Your task to perform on an android device: clear all cookies in the chrome app Image 0: 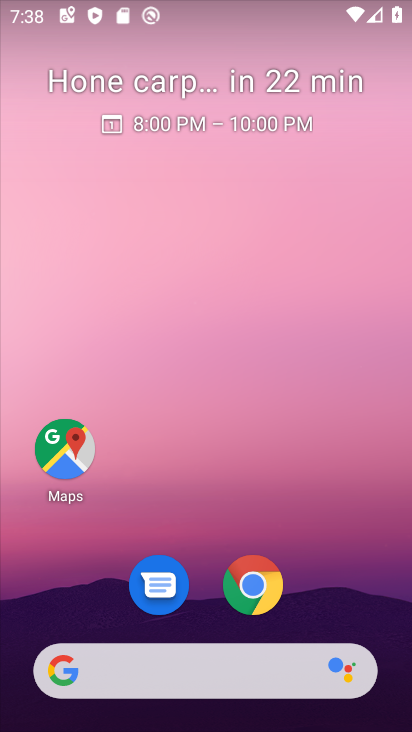
Step 0: click (257, 582)
Your task to perform on an android device: clear all cookies in the chrome app Image 1: 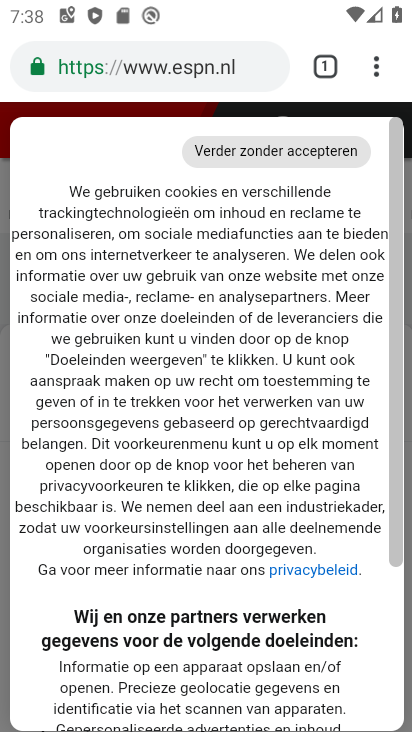
Step 1: click (372, 64)
Your task to perform on an android device: clear all cookies in the chrome app Image 2: 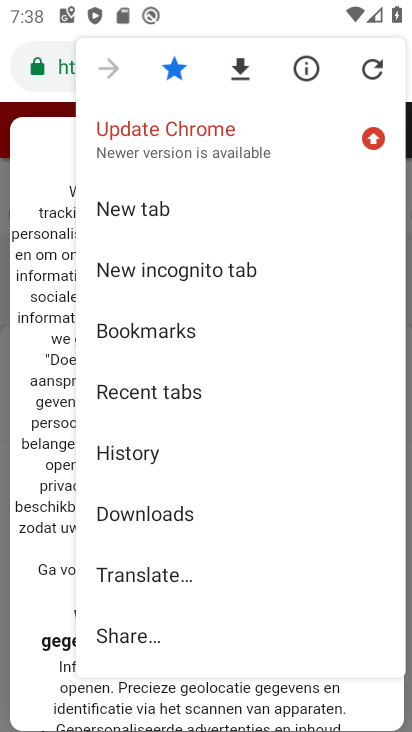
Step 2: drag from (233, 548) to (269, 143)
Your task to perform on an android device: clear all cookies in the chrome app Image 3: 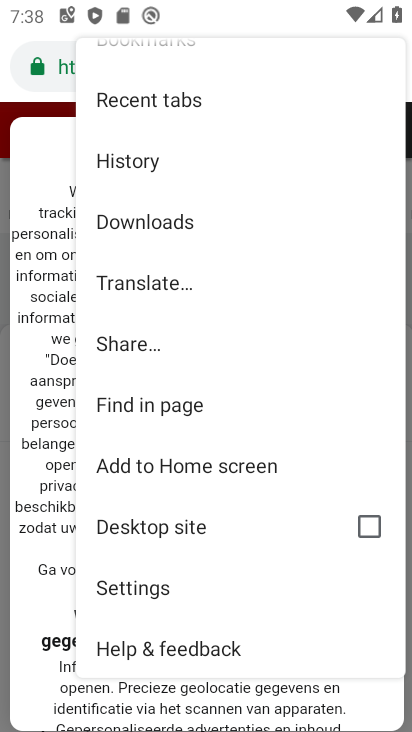
Step 3: click (150, 595)
Your task to perform on an android device: clear all cookies in the chrome app Image 4: 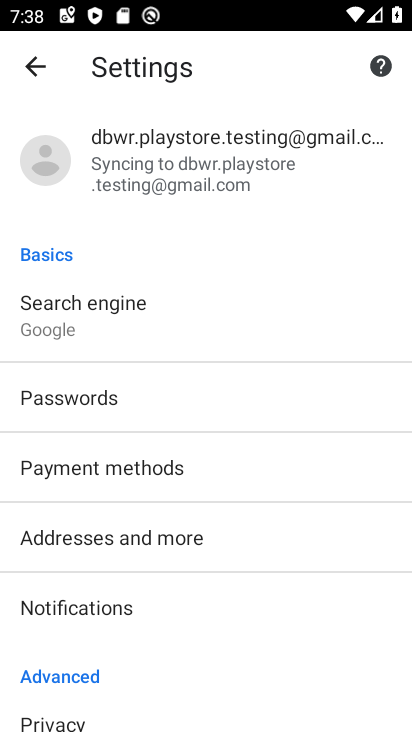
Step 4: drag from (163, 627) to (201, 445)
Your task to perform on an android device: clear all cookies in the chrome app Image 5: 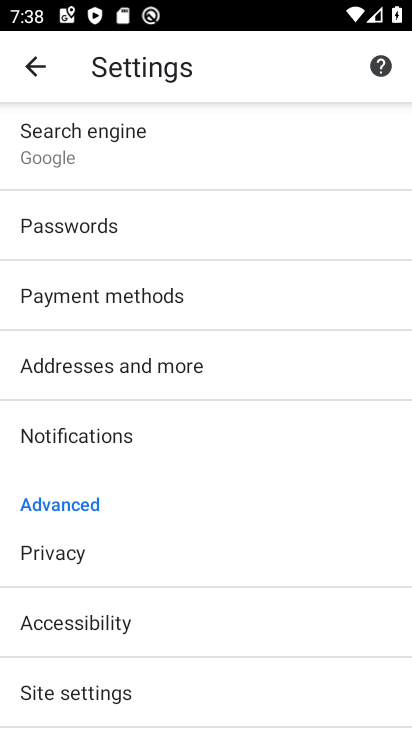
Step 5: click (196, 566)
Your task to perform on an android device: clear all cookies in the chrome app Image 6: 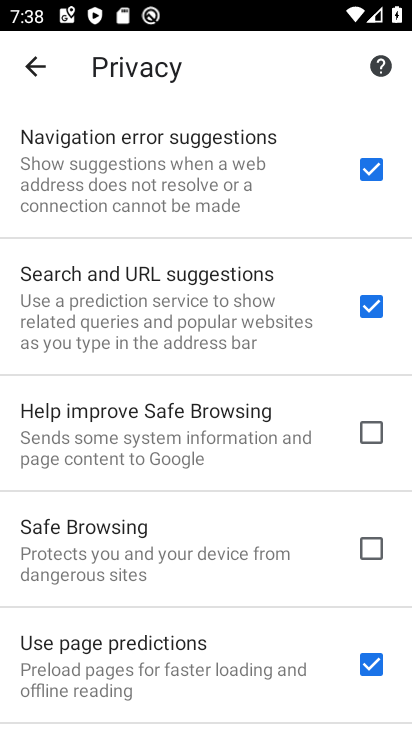
Step 6: drag from (220, 605) to (273, 43)
Your task to perform on an android device: clear all cookies in the chrome app Image 7: 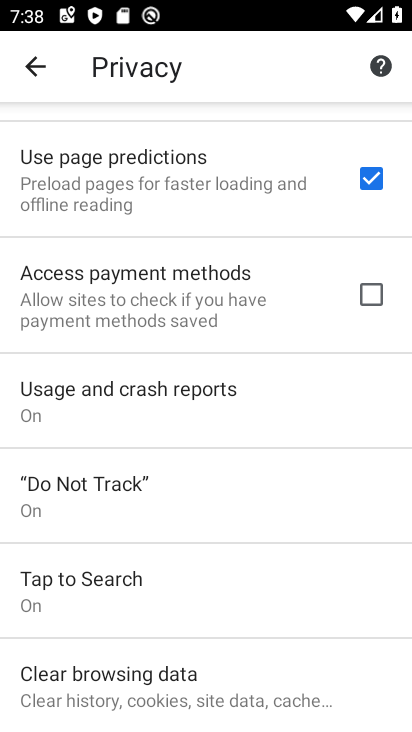
Step 7: click (116, 690)
Your task to perform on an android device: clear all cookies in the chrome app Image 8: 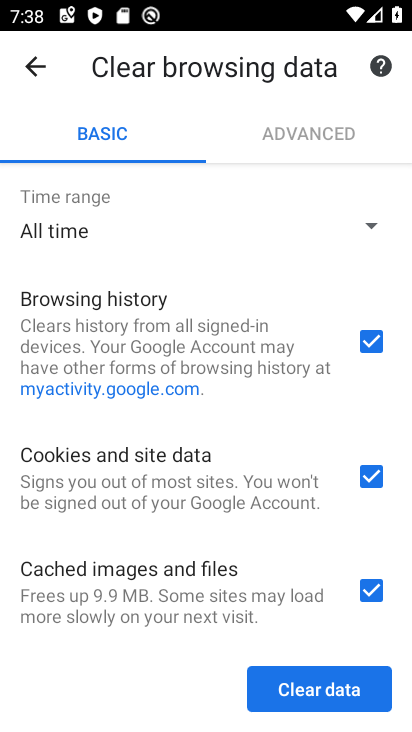
Step 8: click (367, 584)
Your task to perform on an android device: clear all cookies in the chrome app Image 9: 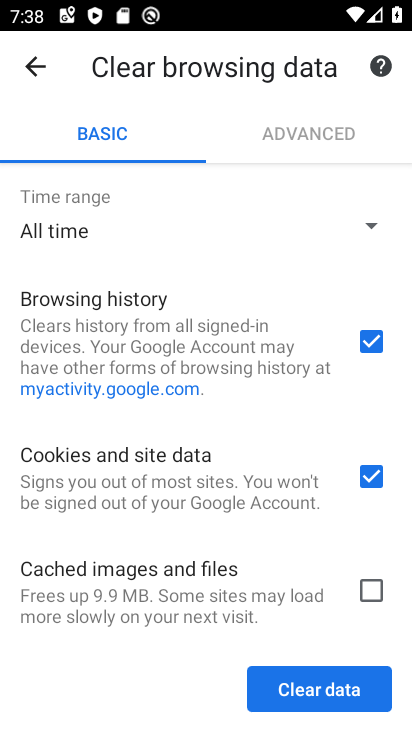
Step 9: click (373, 340)
Your task to perform on an android device: clear all cookies in the chrome app Image 10: 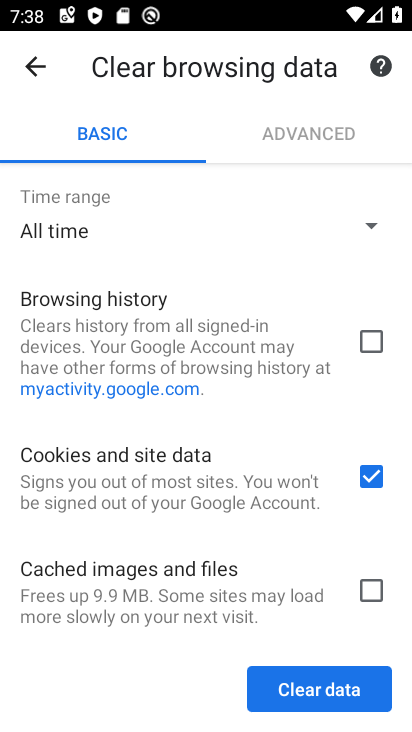
Step 10: click (314, 684)
Your task to perform on an android device: clear all cookies in the chrome app Image 11: 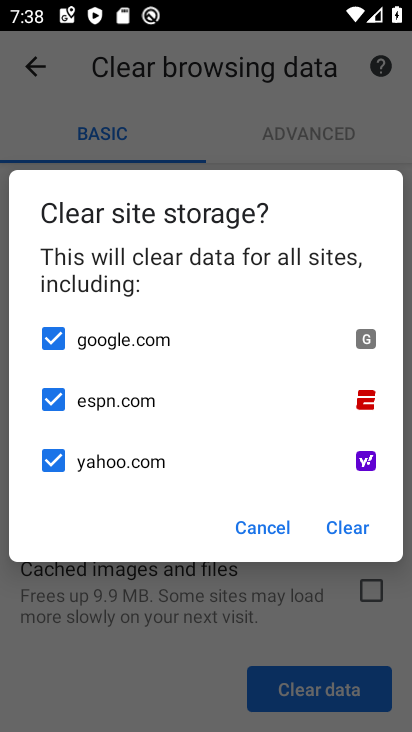
Step 11: click (352, 519)
Your task to perform on an android device: clear all cookies in the chrome app Image 12: 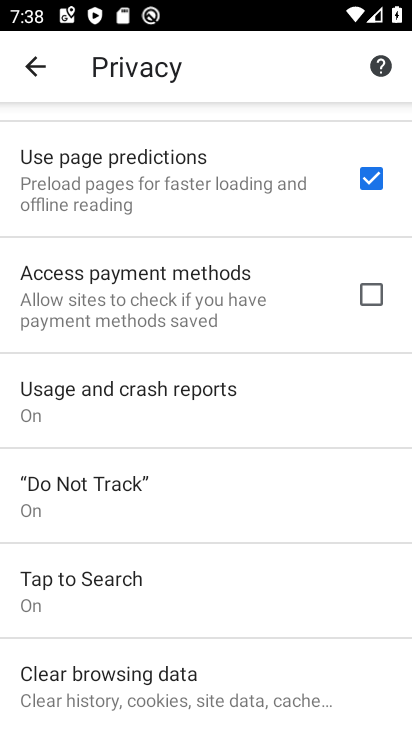
Step 12: task complete